Your task to perform on an android device: open sync settings in chrome Image 0: 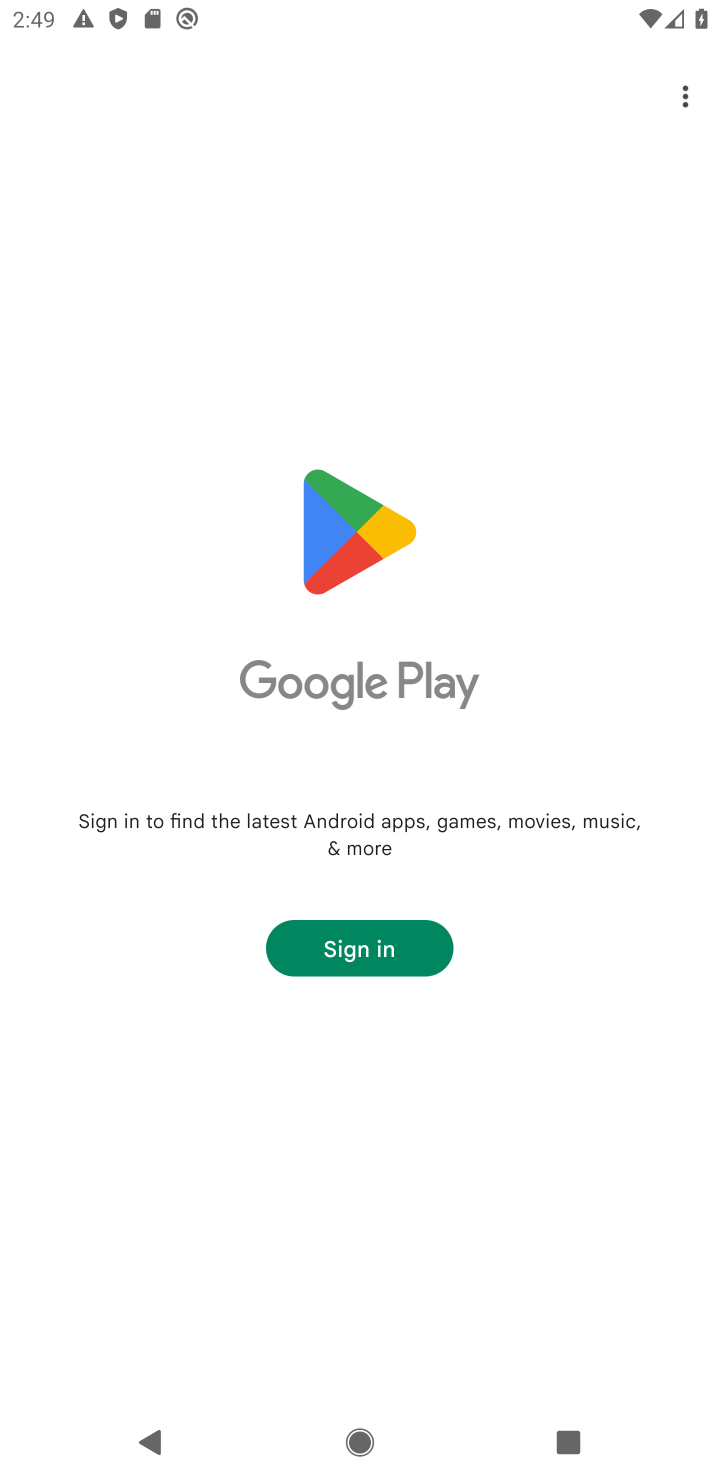
Step 0: press home button
Your task to perform on an android device: open sync settings in chrome Image 1: 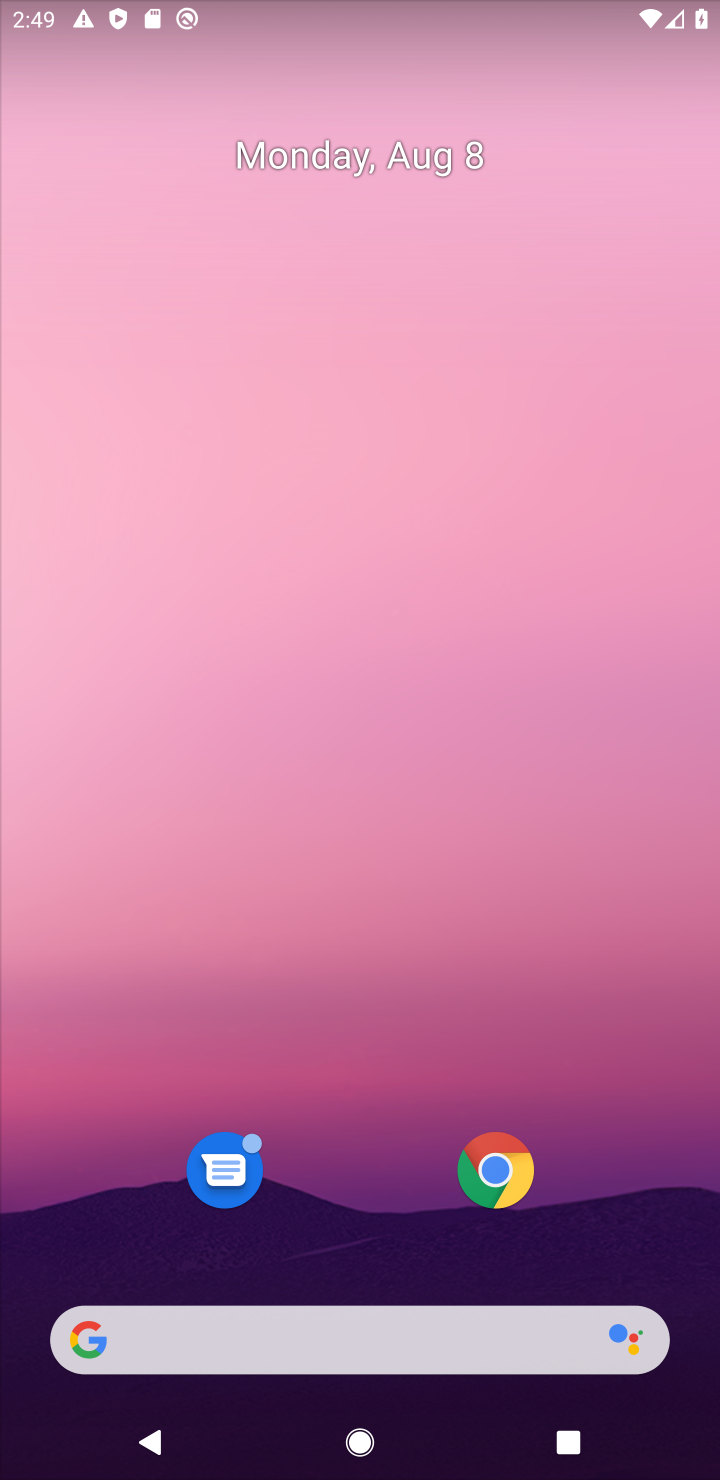
Step 1: drag from (349, 1125) to (370, 257)
Your task to perform on an android device: open sync settings in chrome Image 2: 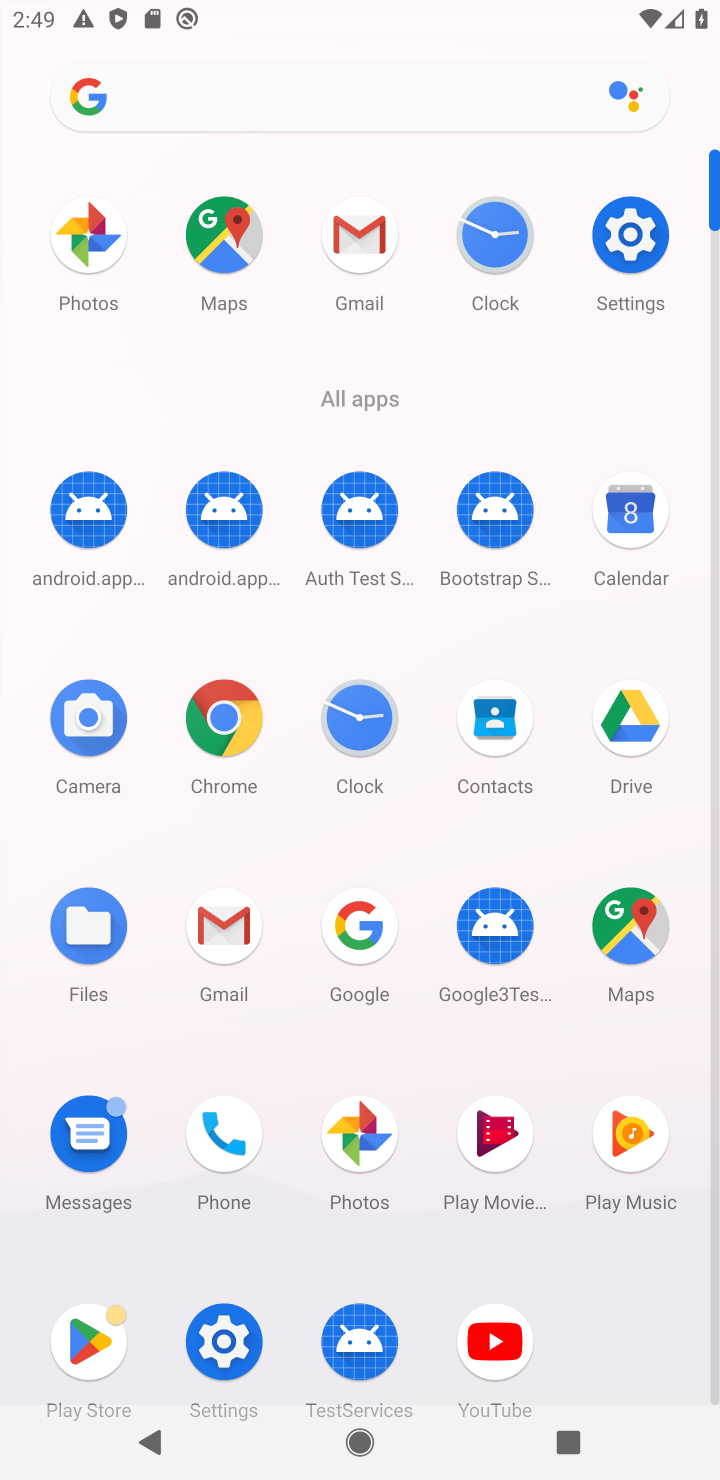
Step 2: click (238, 748)
Your task to perform on an android device: open sync settings in chrome Image 3: 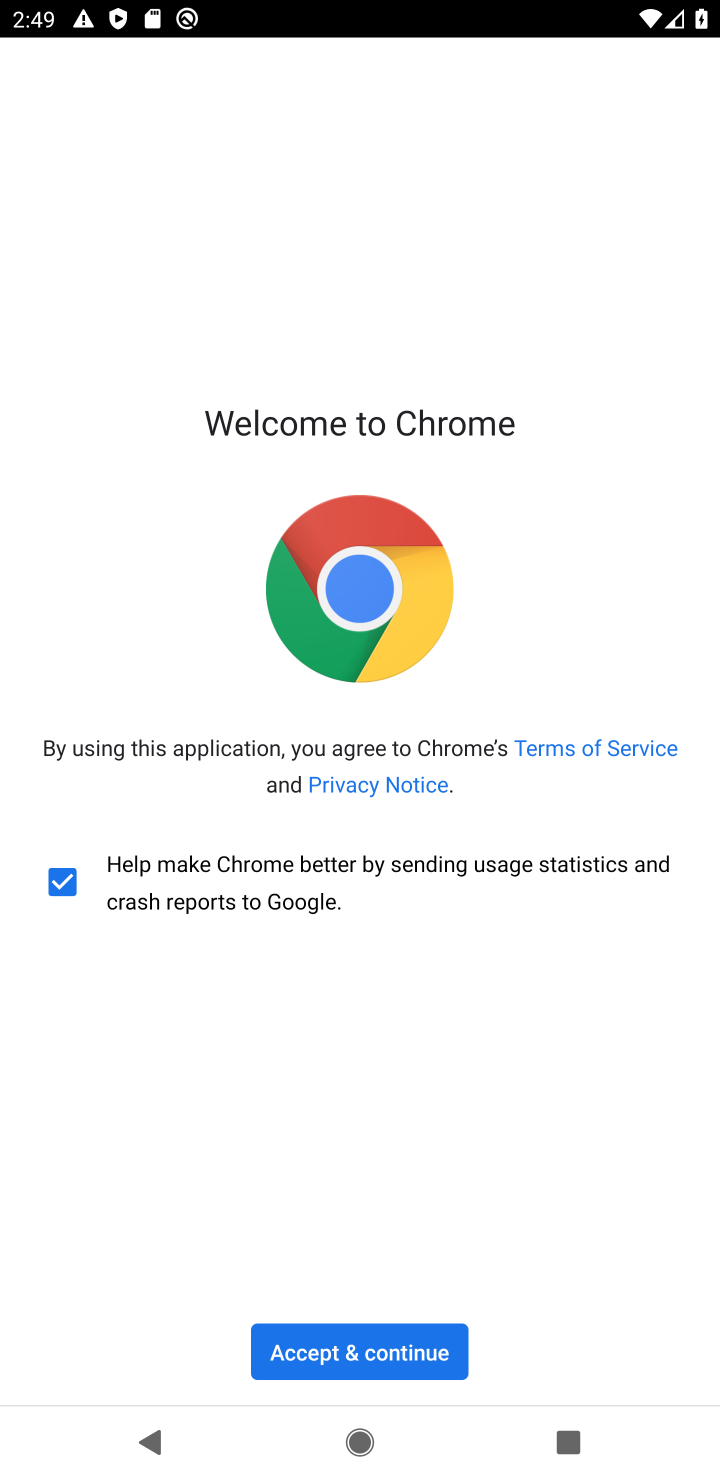
Step 3: click (388, 1355)
Your task to perform on an android device: open sync settings in chrome Image 4: 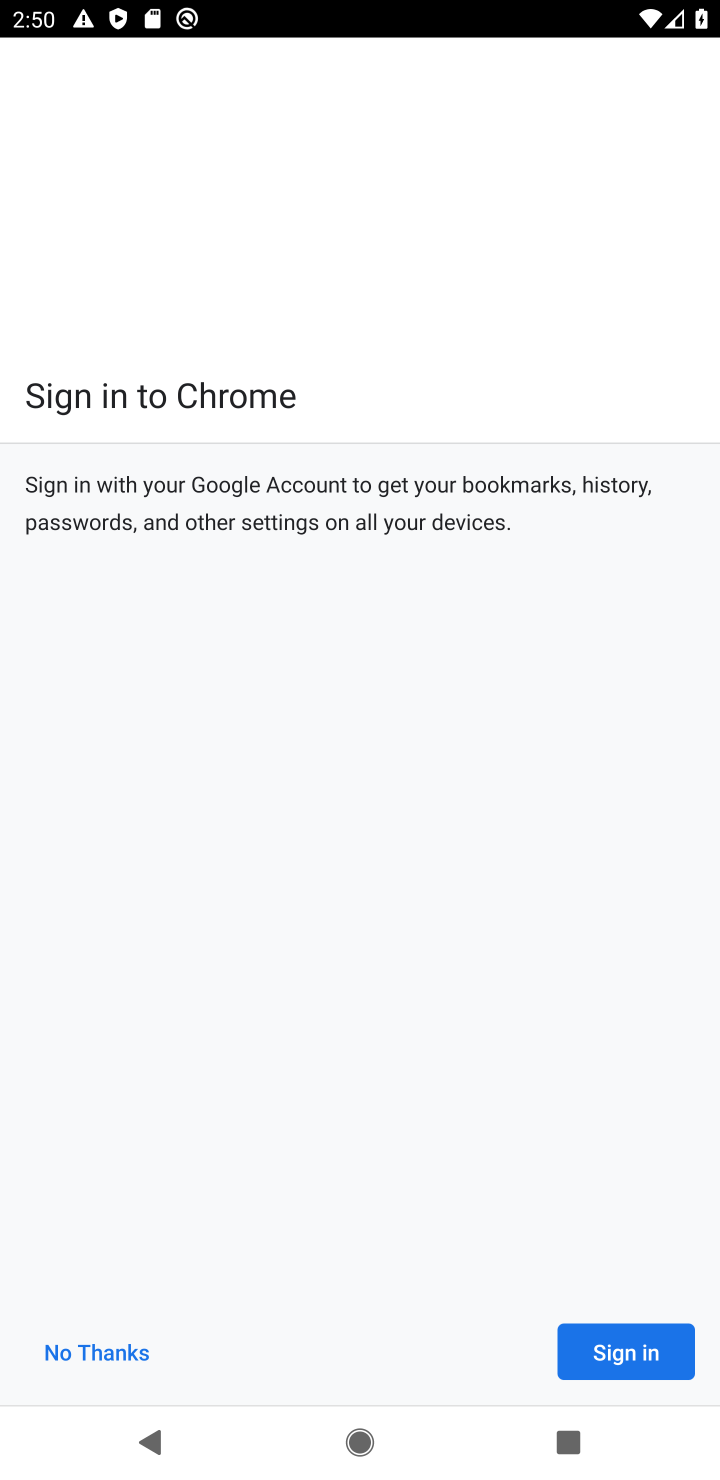
Step 4: click (613, 1369)
Your task to perform on an android device: open sync settings in chrome Image 5: 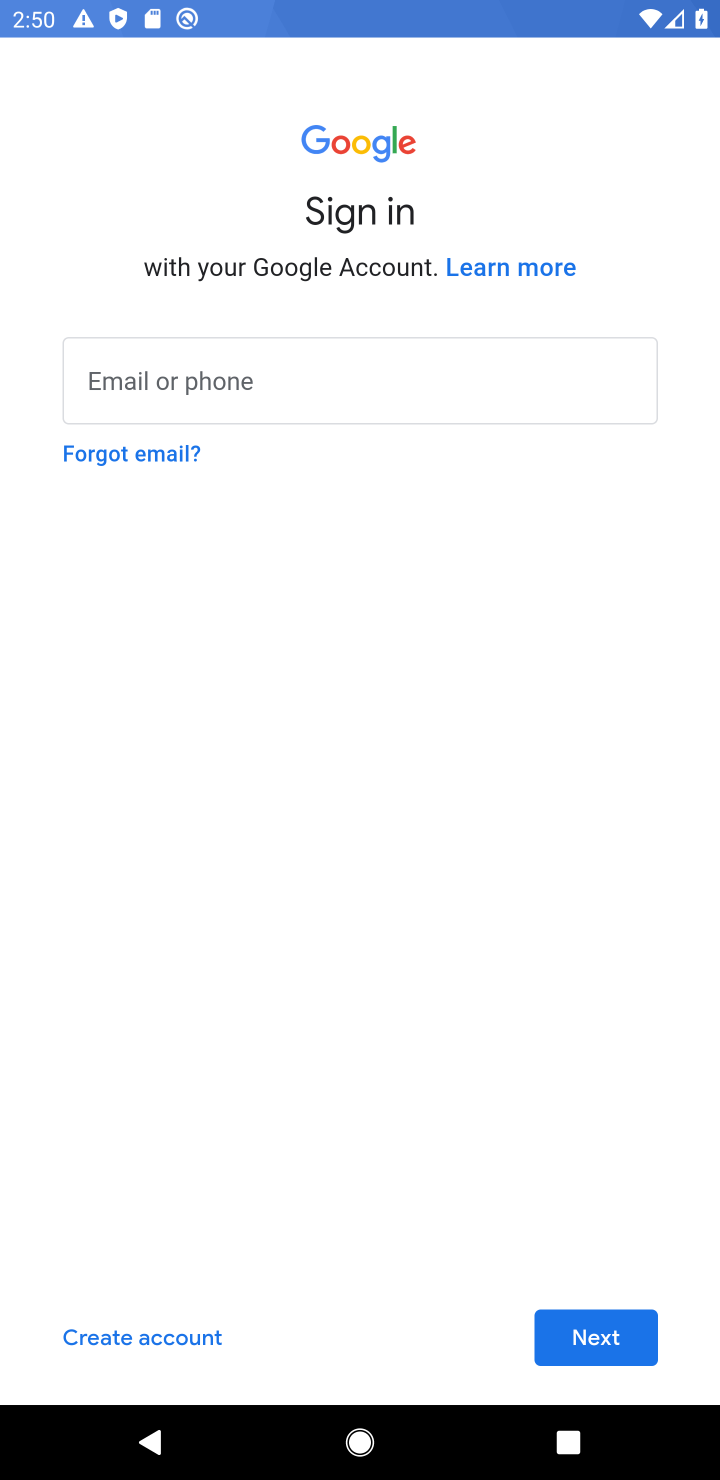
Step 5: click (639, 1339)
Your task to perform on an android device: open sync settings in chrome Image 6: 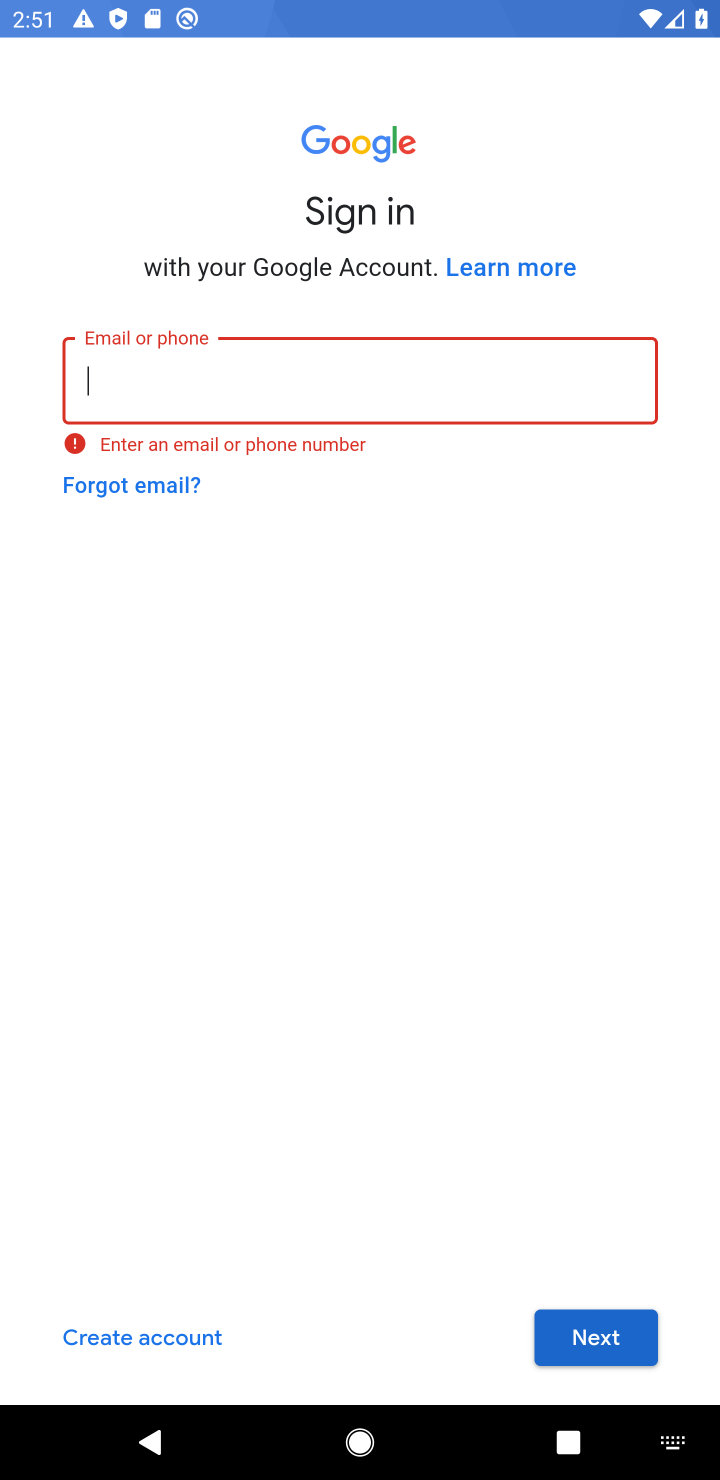
Step 6: press back button
Your task to perform on an android device: open sync settings in chrome Image 7: 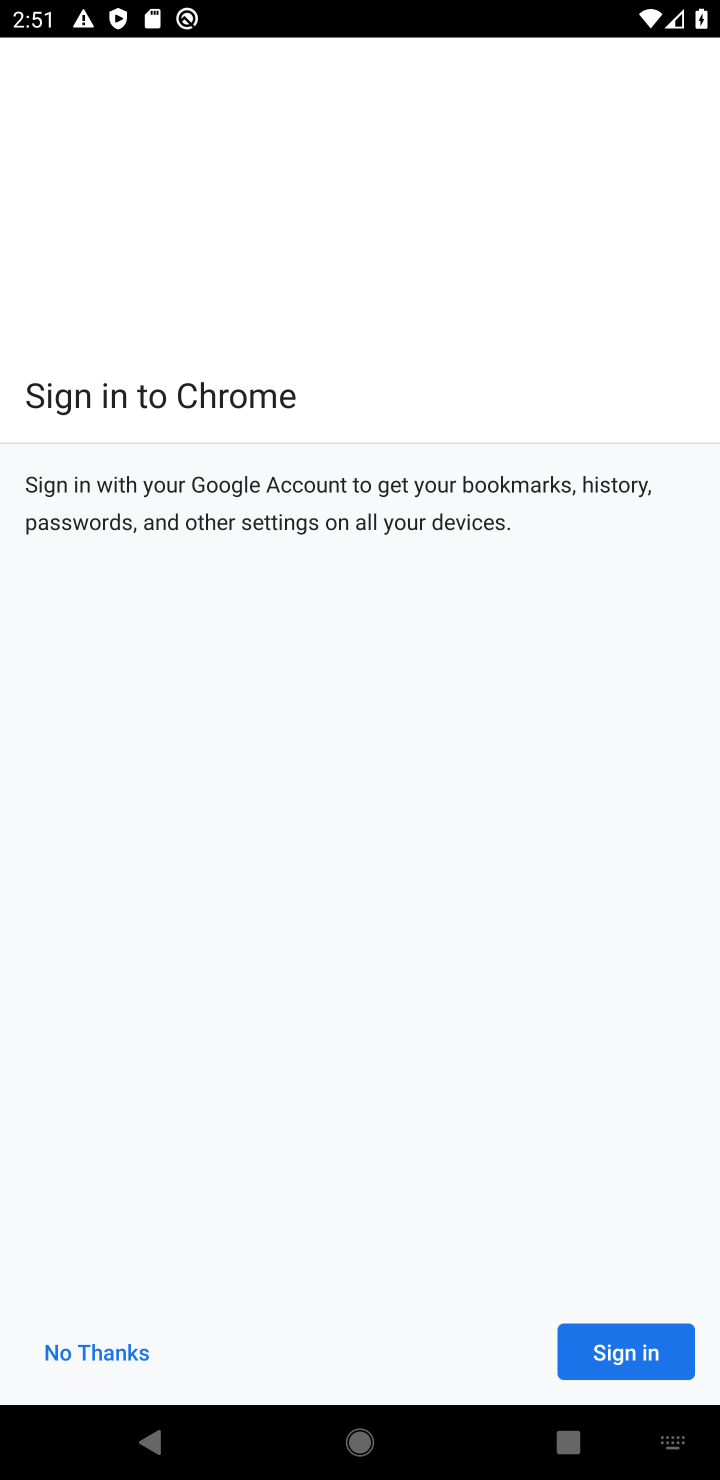
Step 7: press back button
Your task to perform on an android device: open sync settings in chrome Image 8: 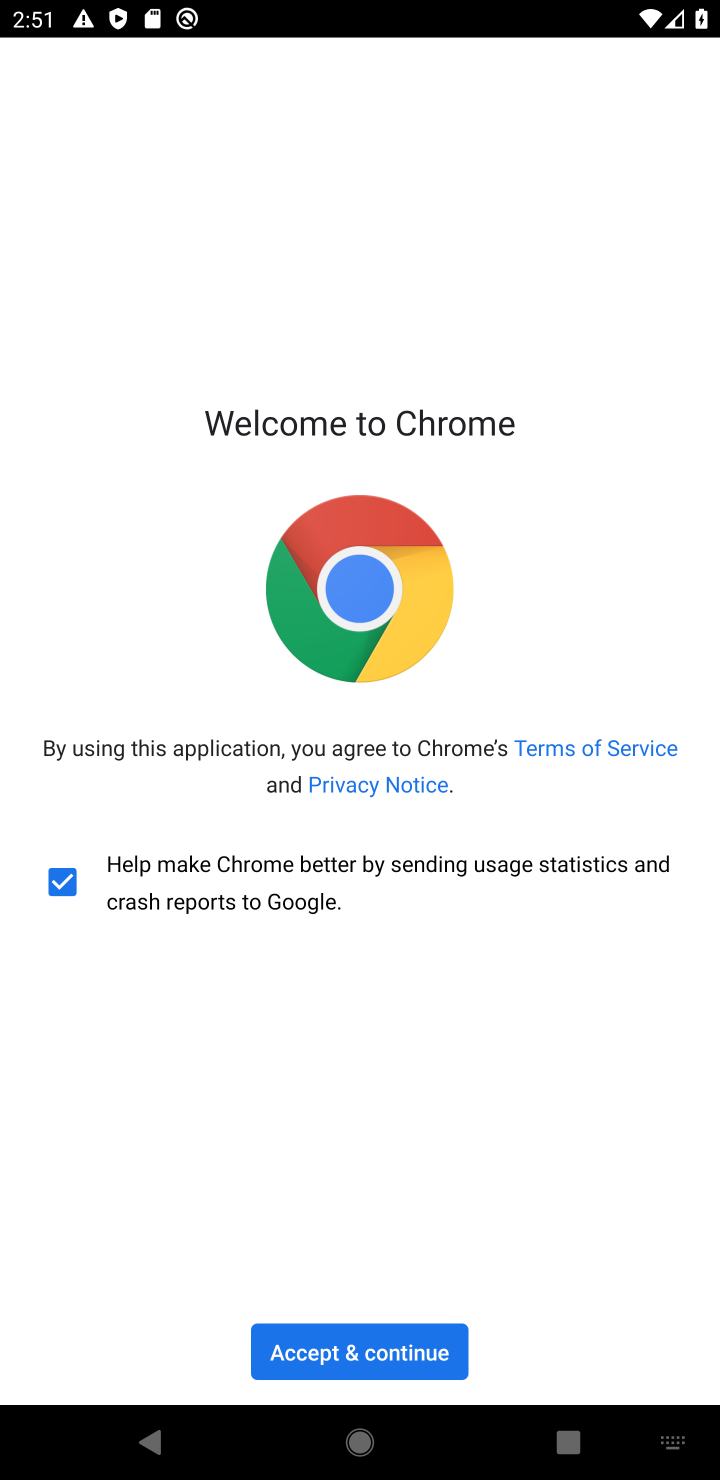
Step 8: press back button
Your task to perform on an android device: open sync settings in chrome Image 9: 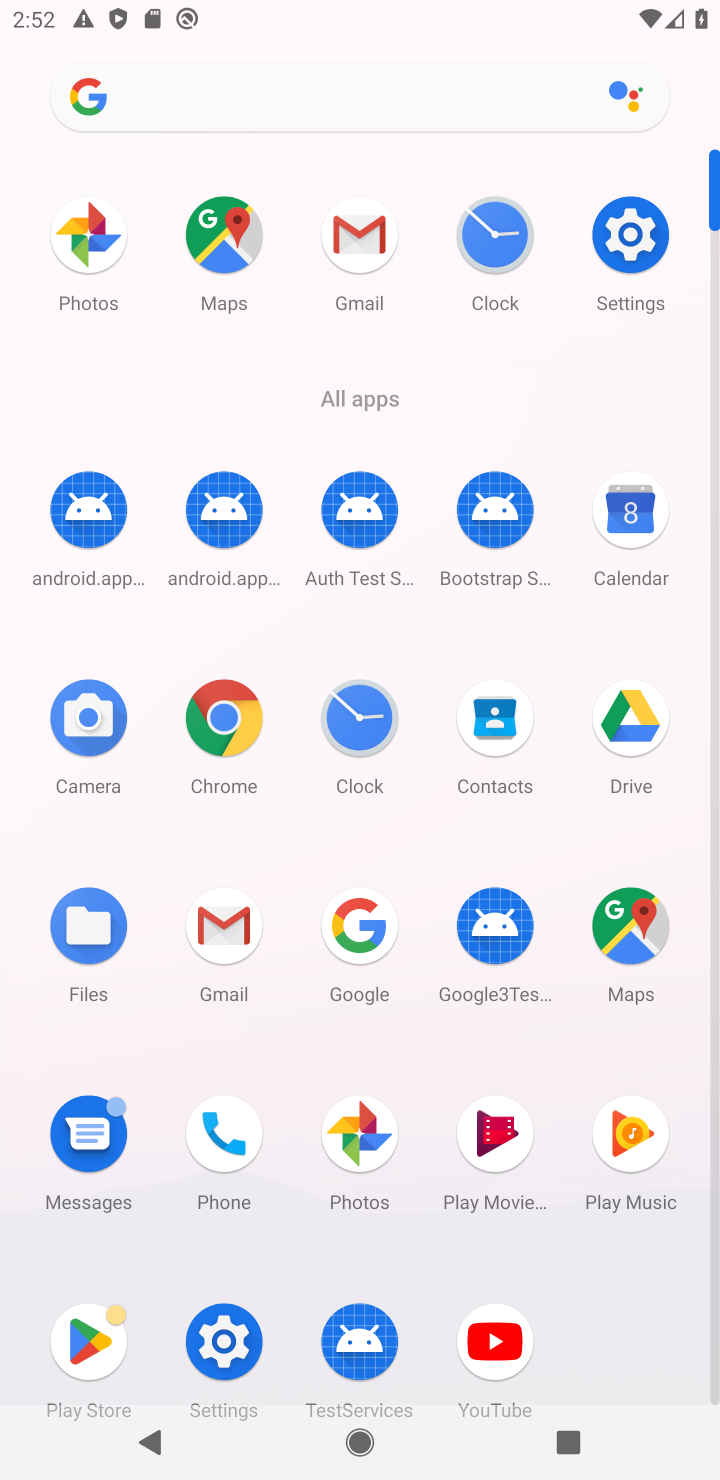
Step 9: click (215, 755)
Your task to perform on an android device: open sync settings in chrome Image 10: 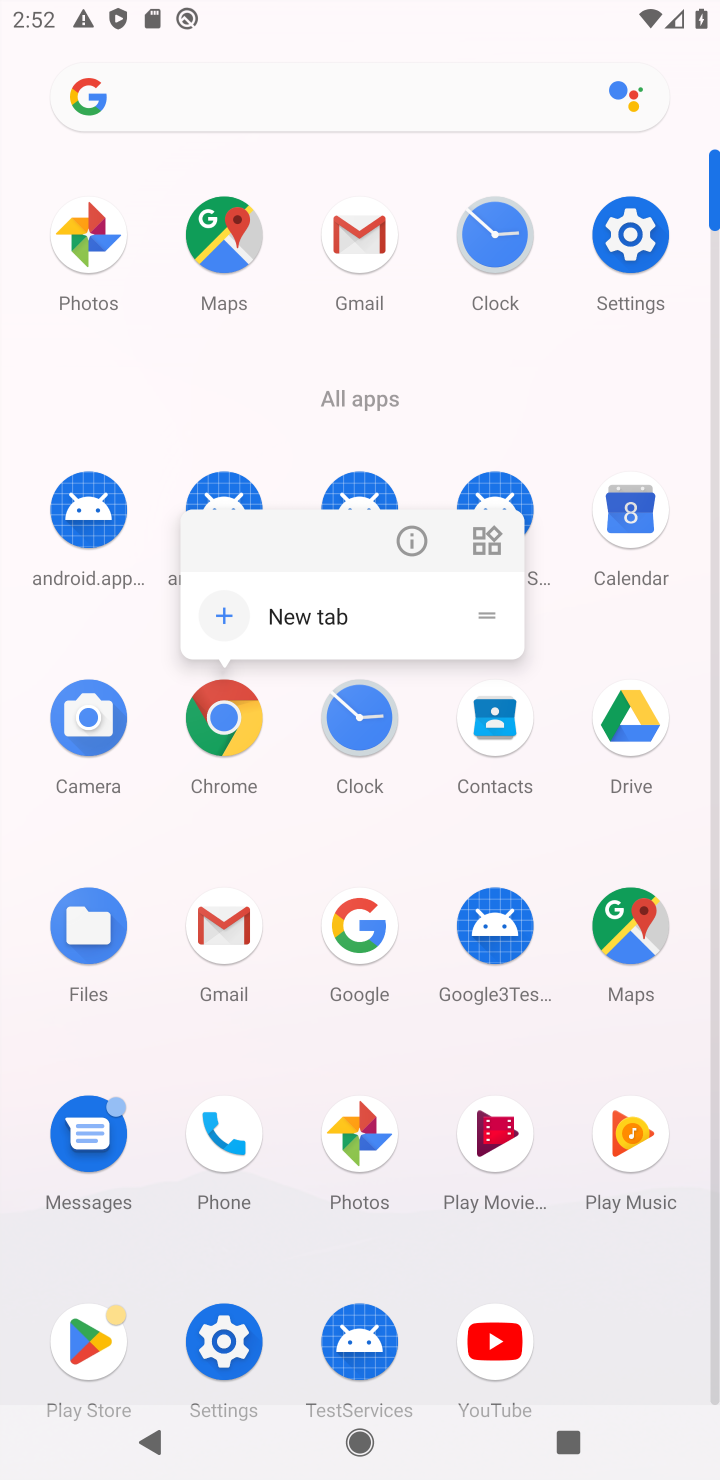
Step 10: click (199, 757)
Your task to perform on an android device: open sync settings in chrome Image 11: 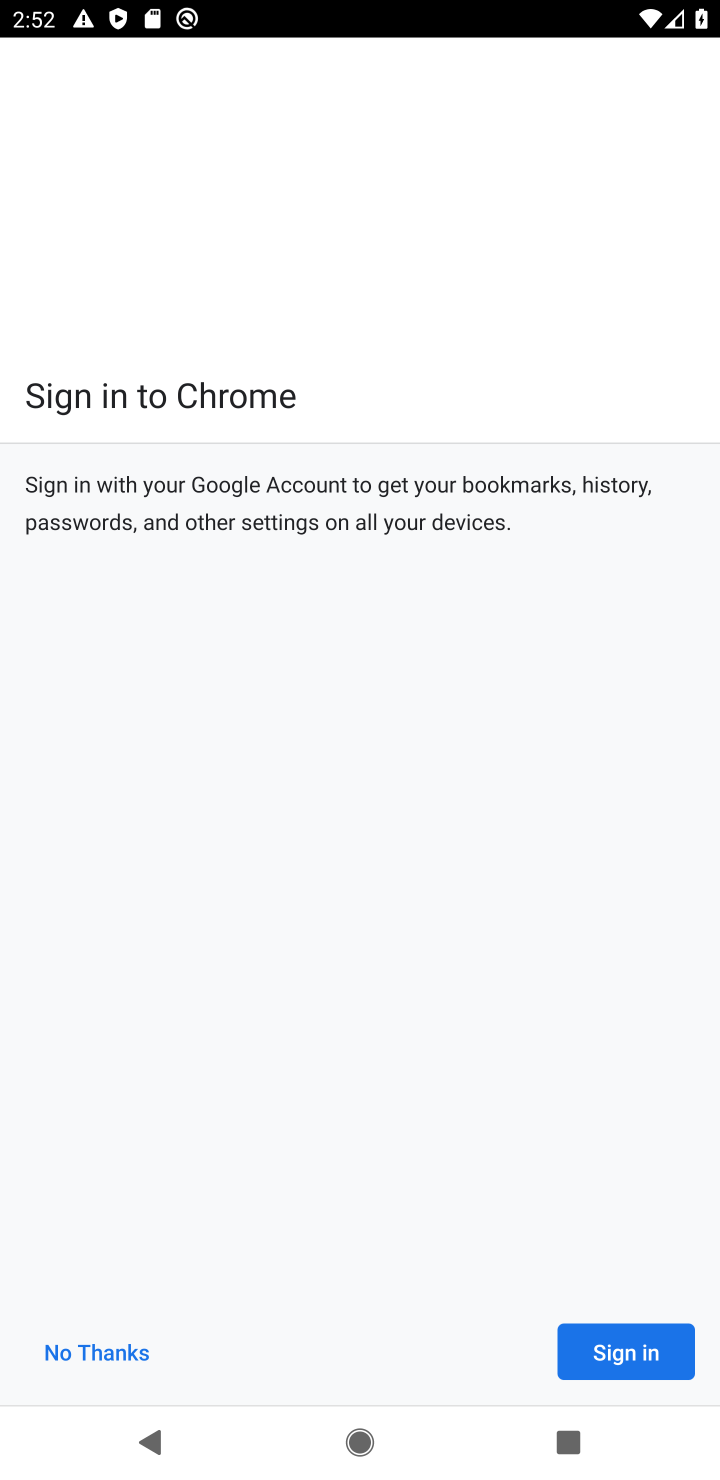
Step 11: click (86, 1340)
Your task to perform on an android device: open sync settings in chrome Image 12: 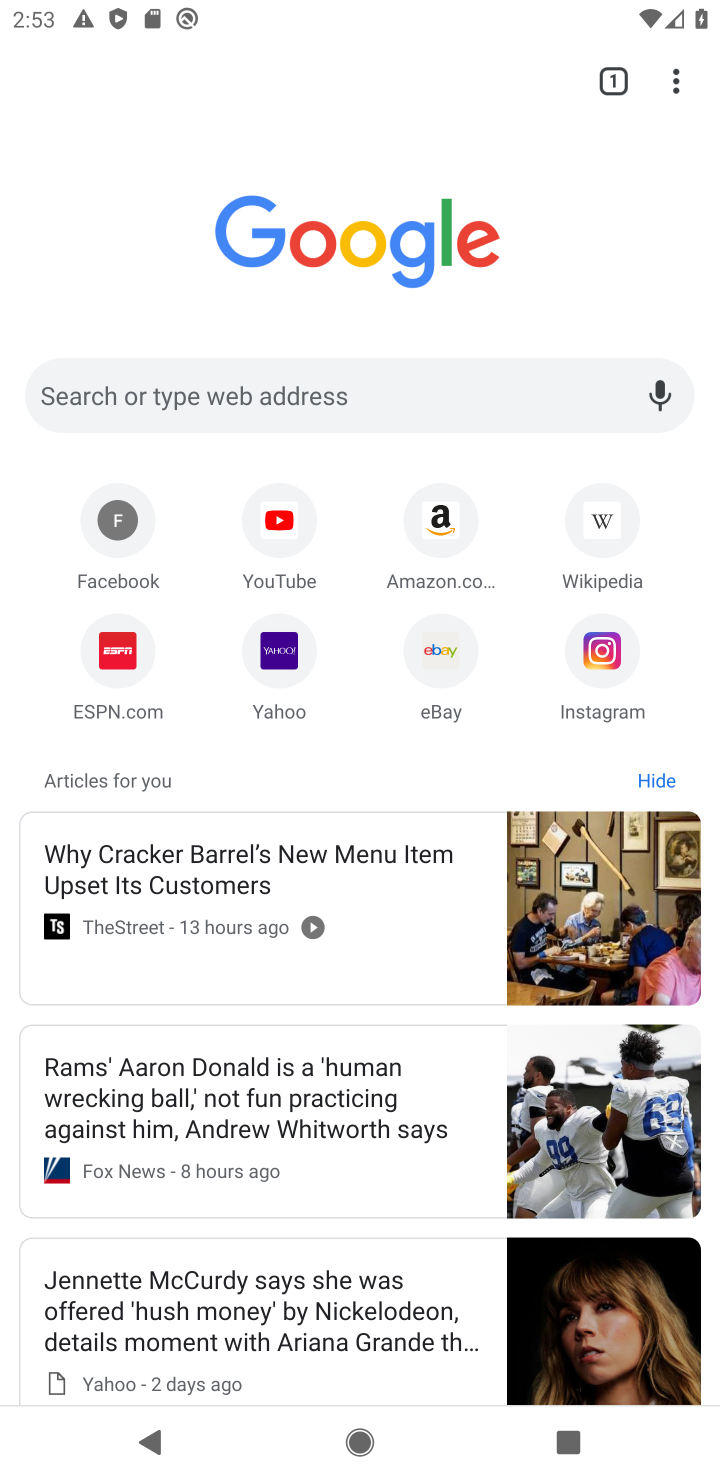
Step 12: click (672, 89)
Your task to perform on an android device: open sync settings in chrome Image 13: 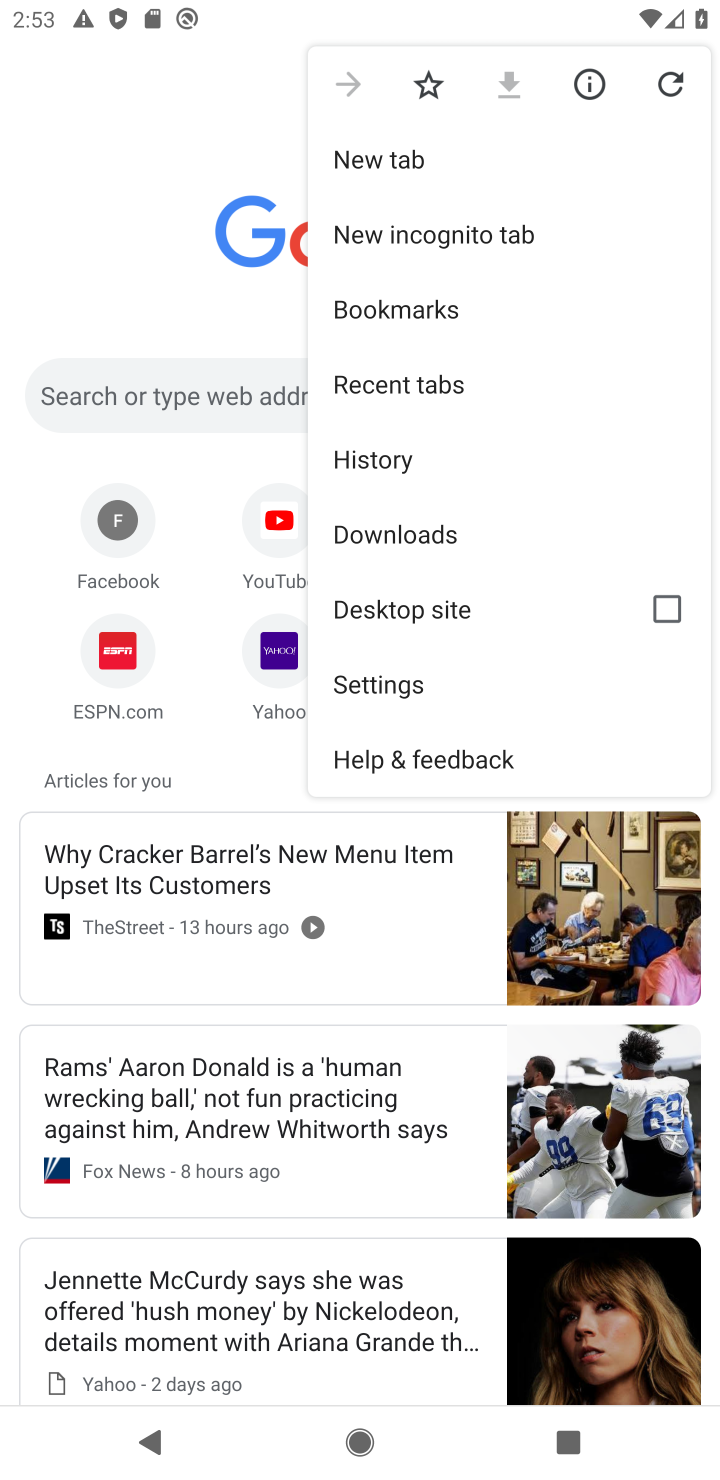
Step 13: click (413, 694)
Your task to perform on an android device: open sync settings in chrome Image 14: 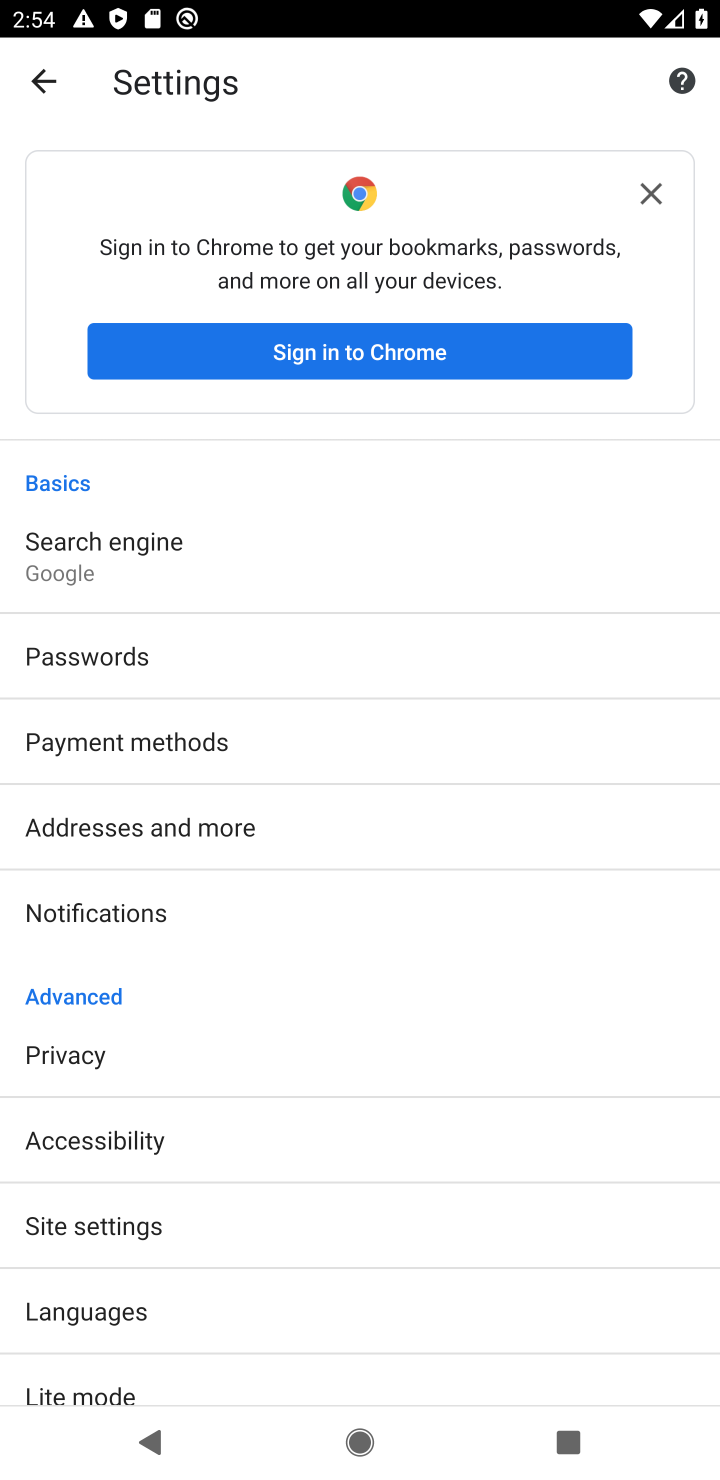
Step 14: task complete